Your task to perform on an android device: clear all cookies in the chrome app Image 0: 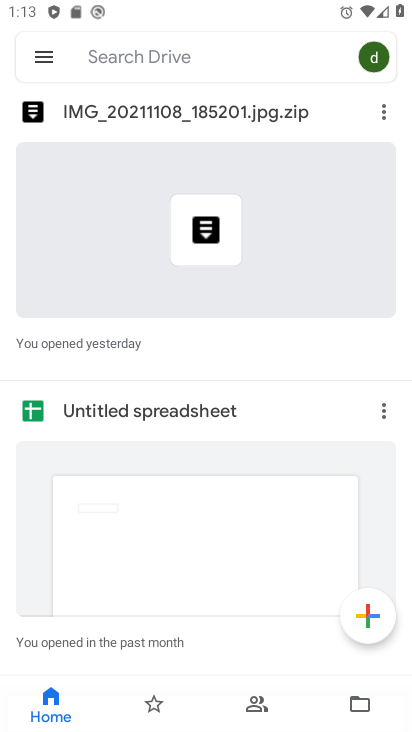
Step 0: press home button
Your task to perform on an android device: clear all cookies in the chrome app Image 1: 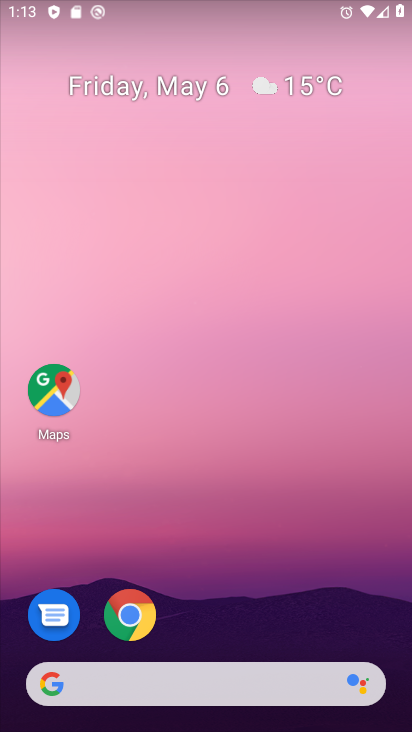
Step 1: click (125, 616)
Your task to perform on an android device: clear all cookies in the chrome app Image 2: 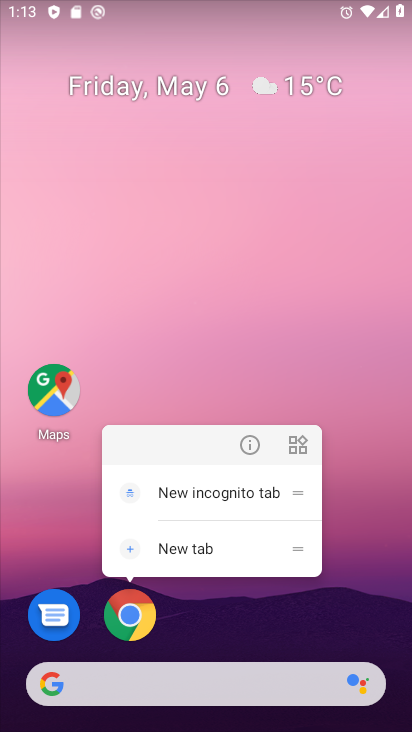
Step 2: click (249, 439)
Your task to perform on an android device: clear all cookies in the chrome app Image 3: 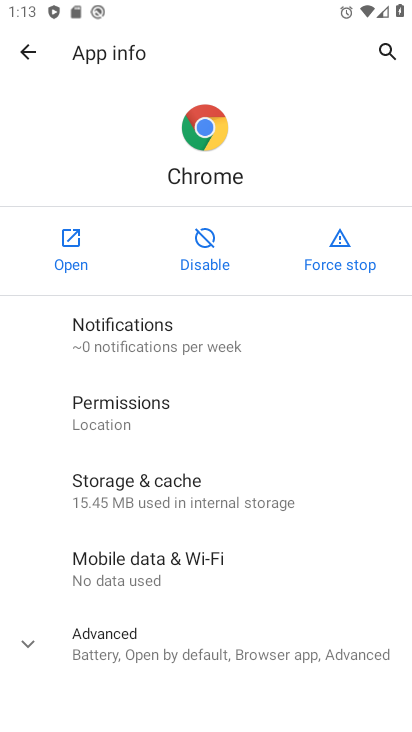
Step 3: drag from (219, 583) to (226, 382)
Your task to perform on an android device: clear all cookies in the chrome app Image 4: 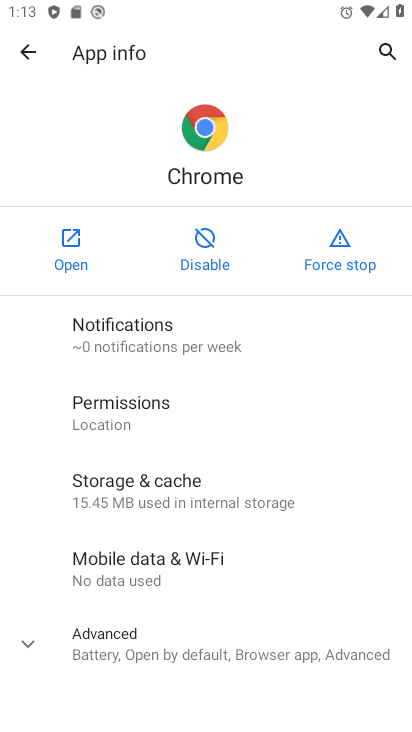
Step 4: click (22, 638)
Your task to perform on an android device: clear all cookies in the chrome app Image 5: 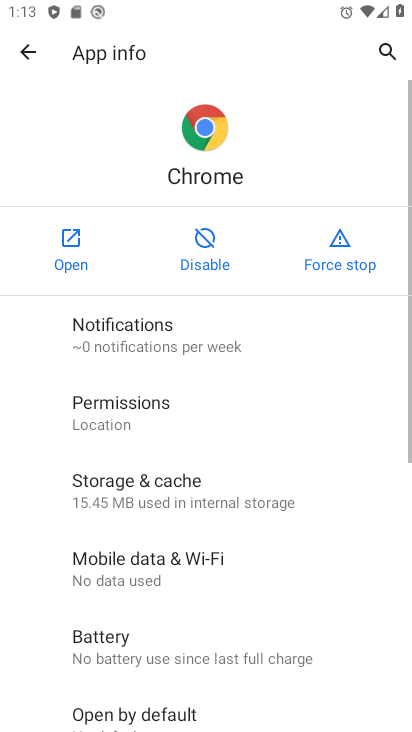
Step 5: drag from (161, 607) to (248, 187)
Your task to perform on an android device: clear all cookies in the chrome app Image 6: 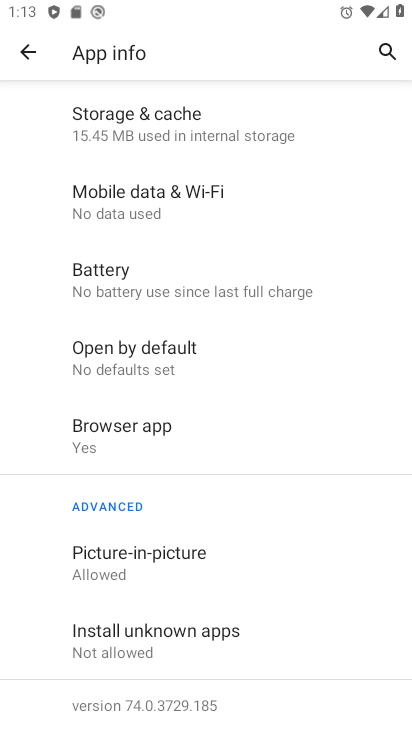
Step 6: drag from (205, 629) to (253, 366)
Your task to perform on an android device: clear all cookies in the chrome app Image 7: 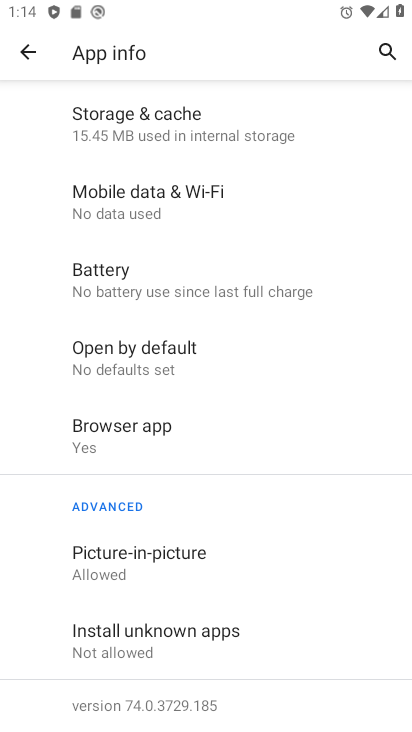
Step 7: click (29, 48)
Your task to perform on an android device: clear all cookies in the chrome app Image 8: 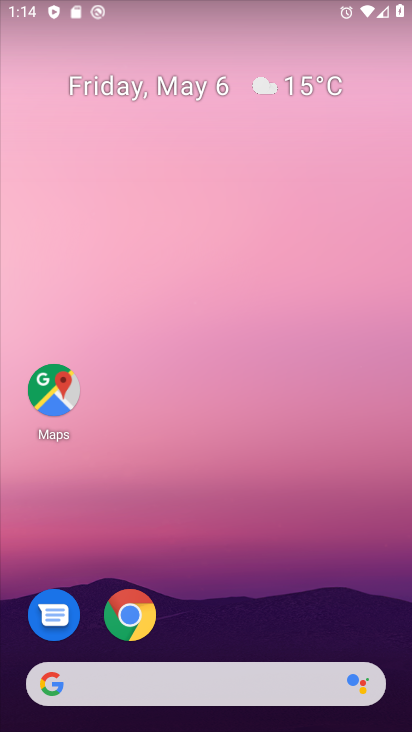
Step 8: drag from (210, 587) to (255, 88)
Your task to perform on an android device: clear all cookies in the chrome app Image 9: 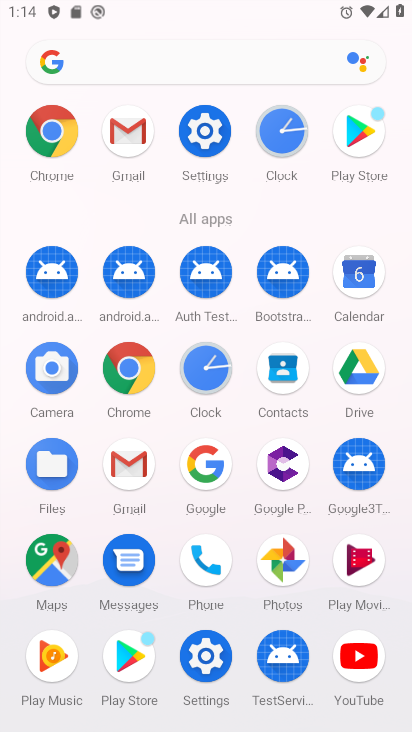
Step 9: click (57, 132)
Your task to perform on an android device: clear all cookies in the chrome app Image 10: 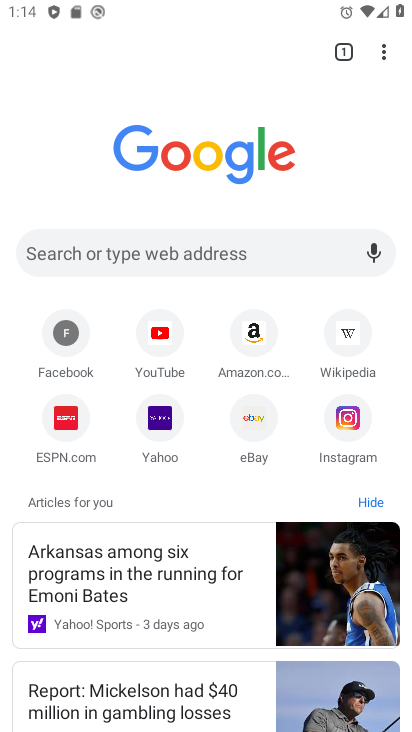
Step 10: drag from (384, 57) to (275, 284)
Your task to perform on an android device: clear all cookies in the chrome app Image 11: 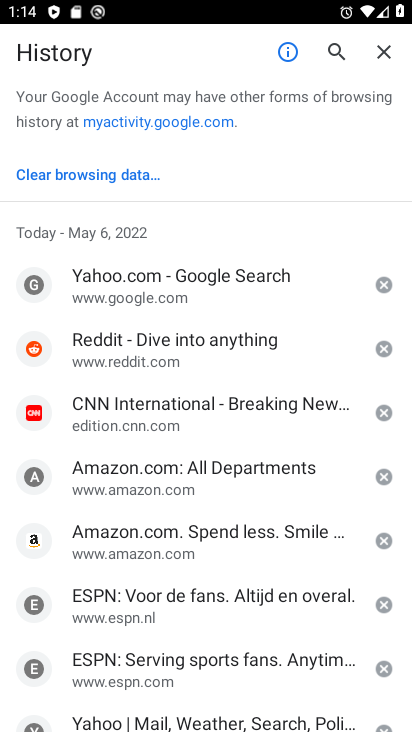
Step 11: click (138, 170)
Your task to perform on an android device: clear all cookies in the chrome app Image 12: 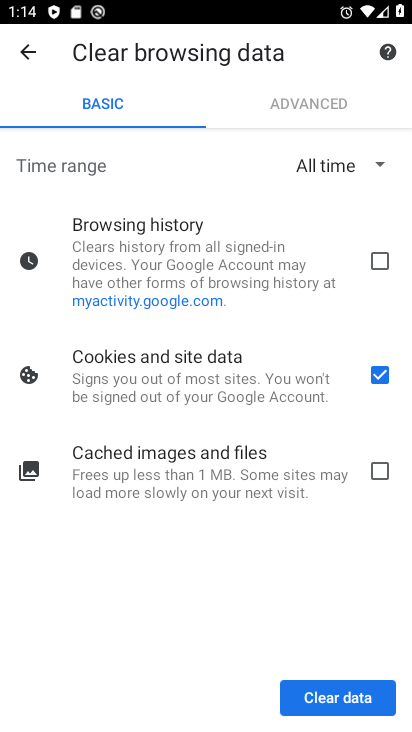
Step 12: click (335, 694)
Your task to perform on an android device: clear all cookies in the chrome app Image 13: 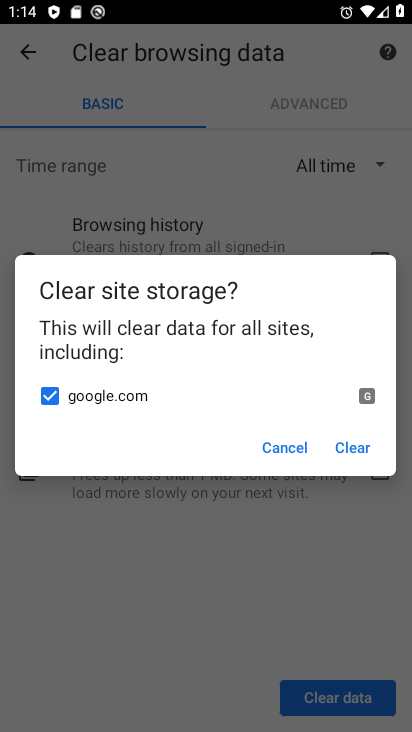
Step 13: click (358, 443)
Your task to perform on an android device: clear all cookies in the chrome app Image 14: 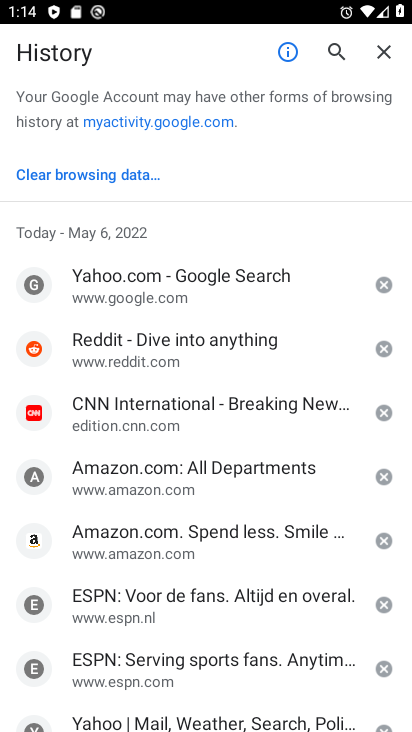
Step 14: task complete